Your task to perform on an android device: Turn on the flashlight Image 0: 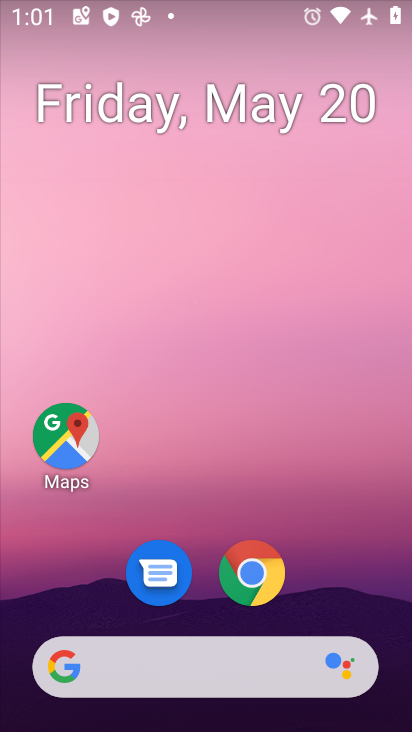
Step 0: drag from (342, 531) to (289, 96)
Your task to perform on an android device: Turn on the flashlight Image 1: 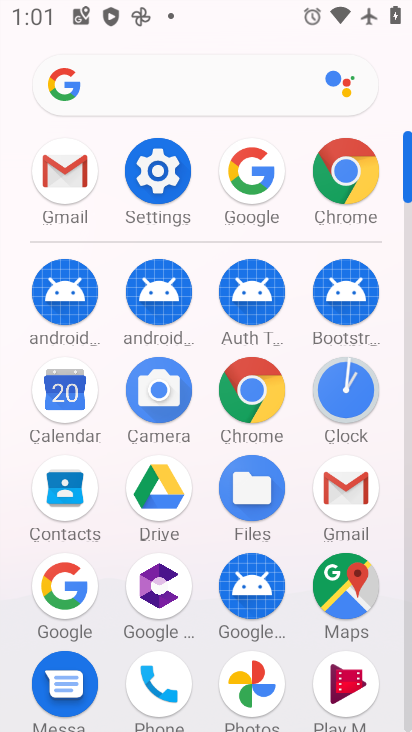
Step 1: click (158, 151)
Your task to perform on an android device: Turn on the flashlight Image 2: 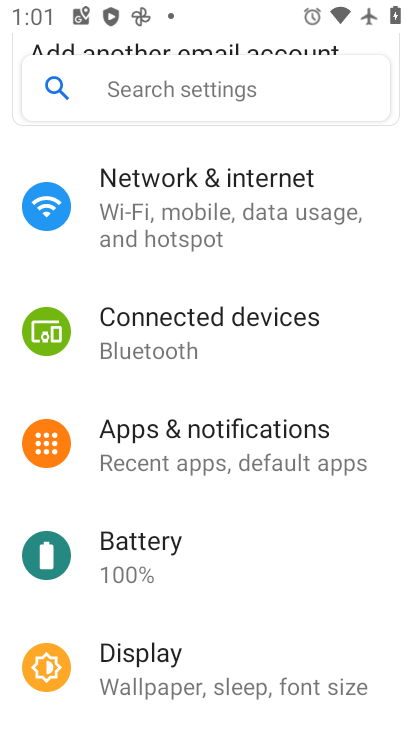
Step 2: click (217, 95)
Your task to perform on an android device: Turn on the flashlight Image 3: 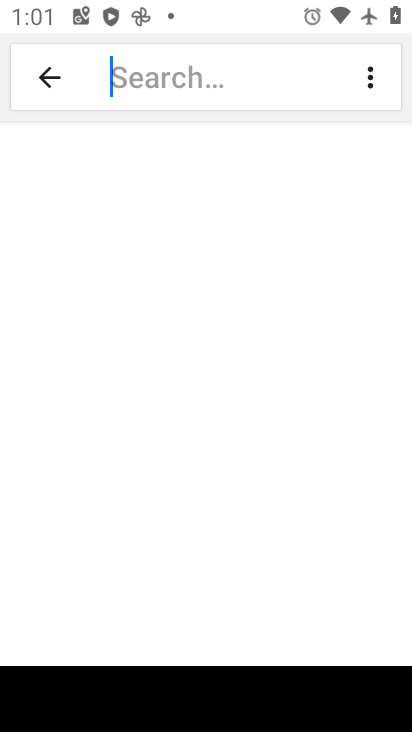
Step 3: type "flash"
Your task to perform on an android device: Turn on the flashlight Image 4: 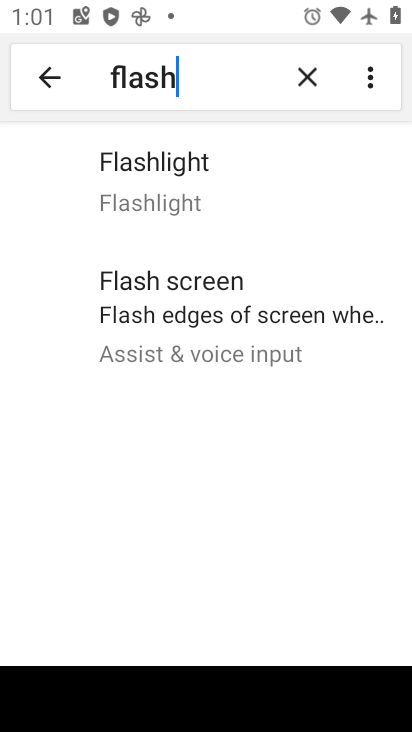
Step 4: task complete